Your task to perform on an android device: Open Youtube and go to "Your channel" Image 0: 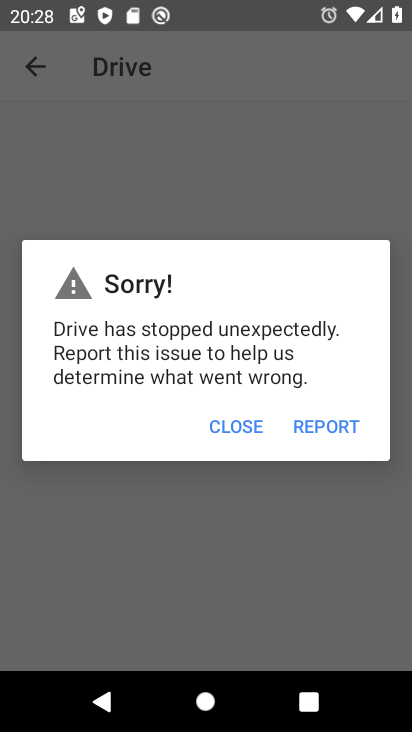
Step 0: press home button
Your task to perform on an android device: Open Youtube and go to "Your channel" Image 1: 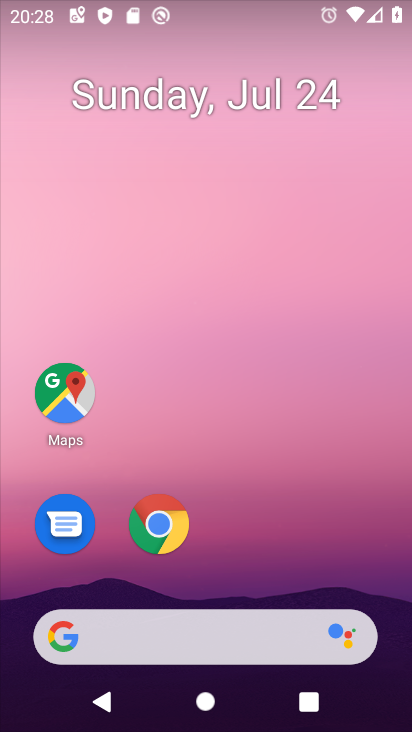
Step 1: drag from (281, 548) to (300, 23)
Your task to perform on an android device: Open Youtube and go to "Your channel" Image 2: 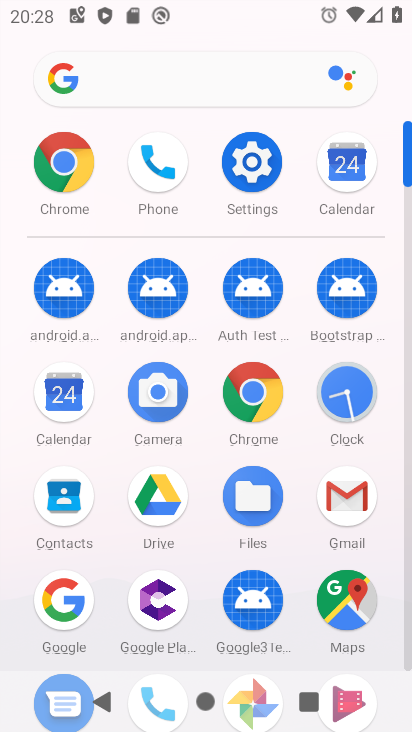
Step 2: drag from (213, 506) to (205, 60)
Your task to perform on an android device: Open Youtube and go to "Your channel" Image 3: 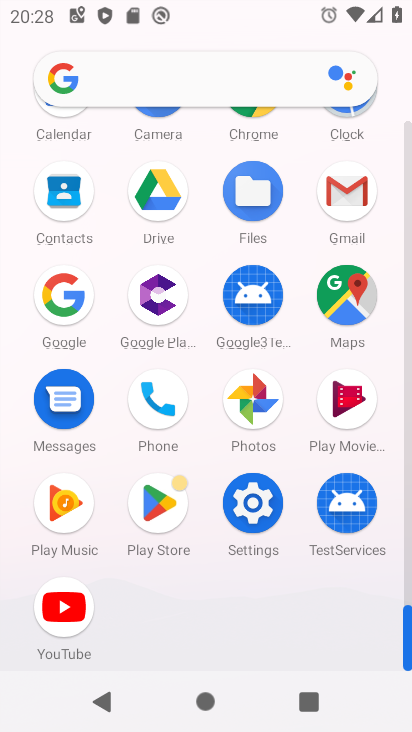
Step 3: click (56, 600)
Your task to perform on an android device: Open Youtube and go to "Your channel" Image 4: 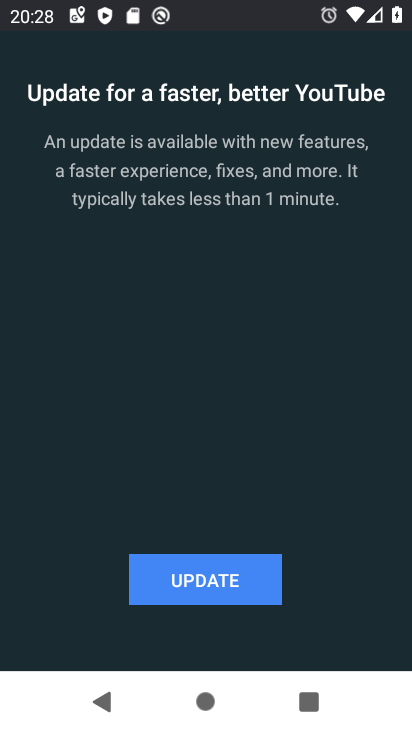
Step 4: click (168, 587)
Your task to perform on an android device: Open Youtube and go to "Your channel" Image 5: 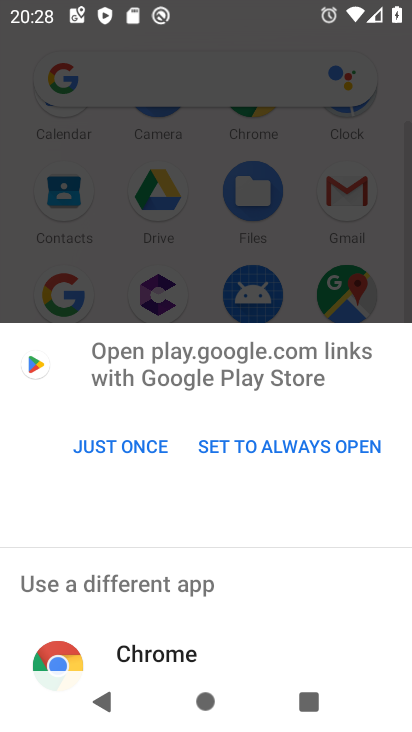
Step 5: click (143, 442)
Your task to perform on an android device: Open Youtube and go to "Your channel" Image 6: 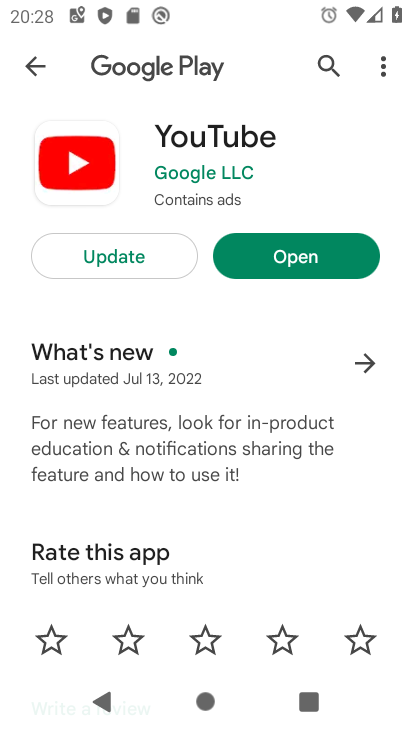
Step 6: click (139, 243)
Your task to perform on an android device: Open Youtube and go to "Your channel" Image 7: 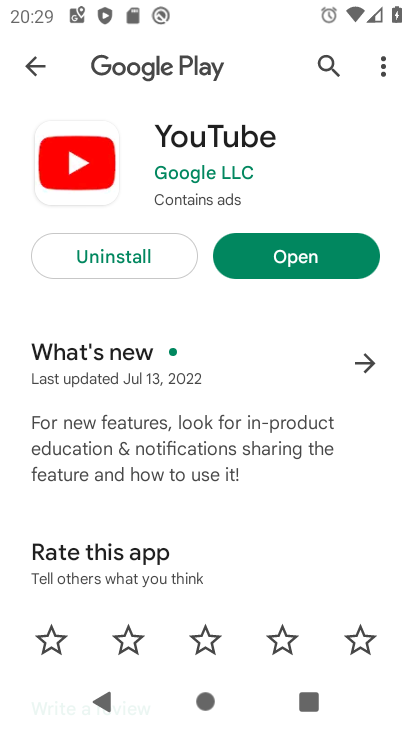
Step 7: click (293, 256)
Your task to perform on an android device: Open Youtube and go to "Your channel" Image 8: 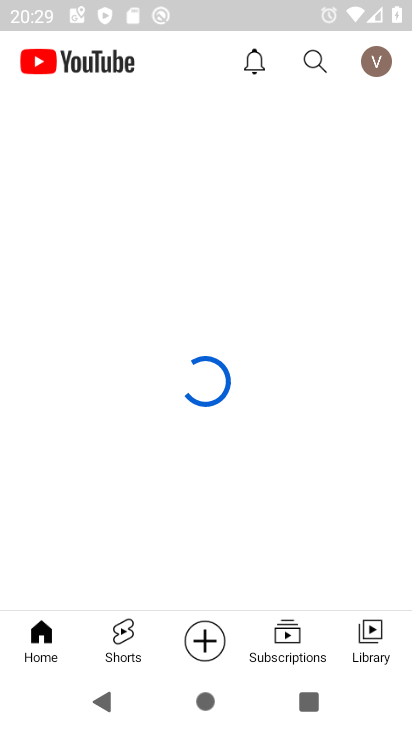
Step 8: click (385, 59)
Your task to perform on an android device: Open Youtube and go to "Your channel" Image 9: 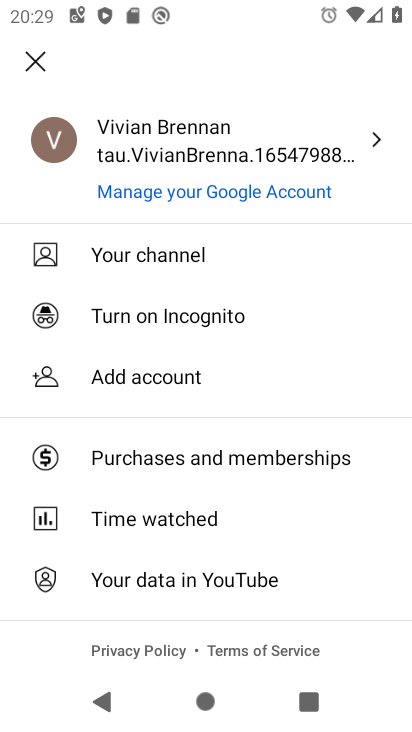
Step 9: click (183, 257)
Your task to perform on an android device: Open Youtube and go to "Your channel" Image 10: 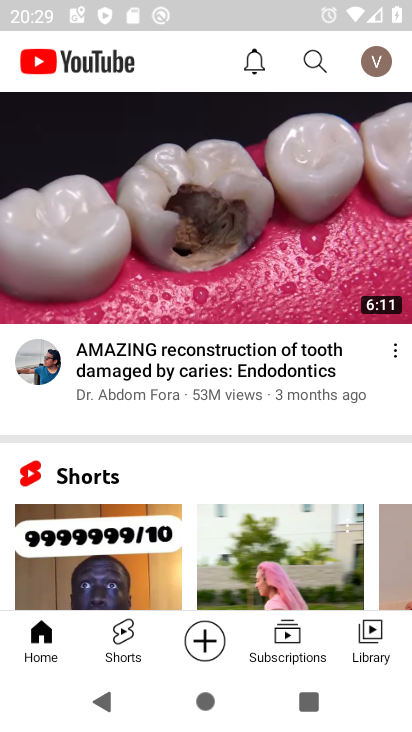
Step 10: task complete